Your task to perform on an android device: Add asus rog to the cart on target, then select checkout. Image 0: 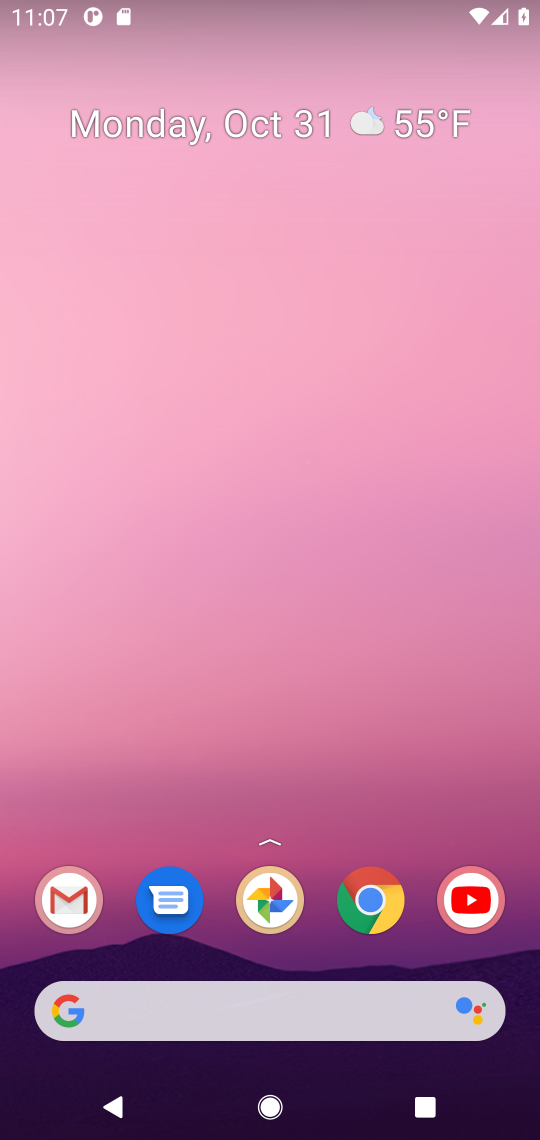
Step 0: click (367, 908)
Your task to perform on an android device: Add asus rog to the cart on target, then select checkout. Image 1: 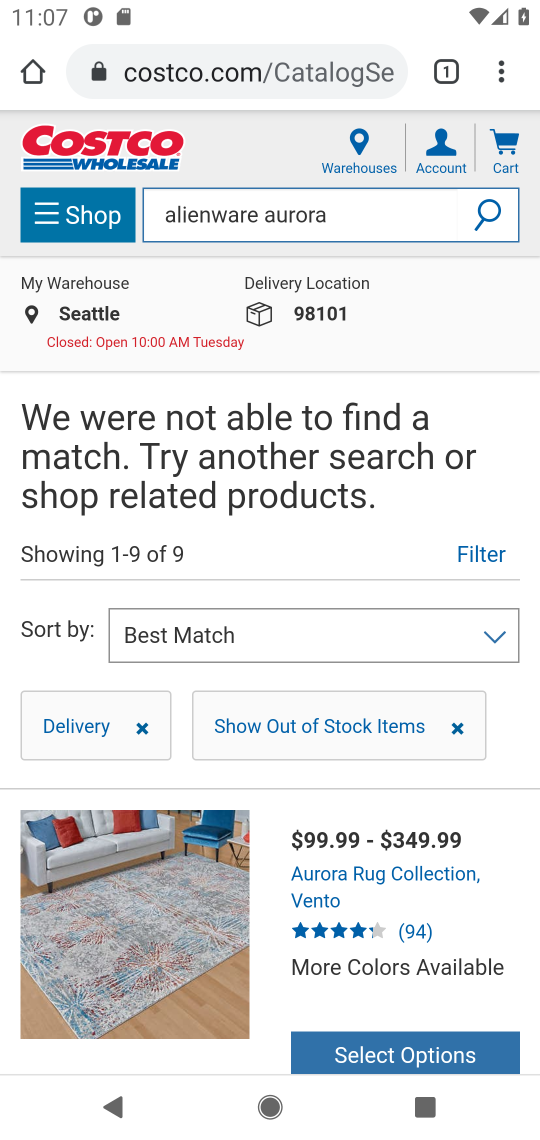
Step 1: click (219, 75)
Your task to perform on an android device: Add asus rog to the cart on target, then select checkout. Image 2: 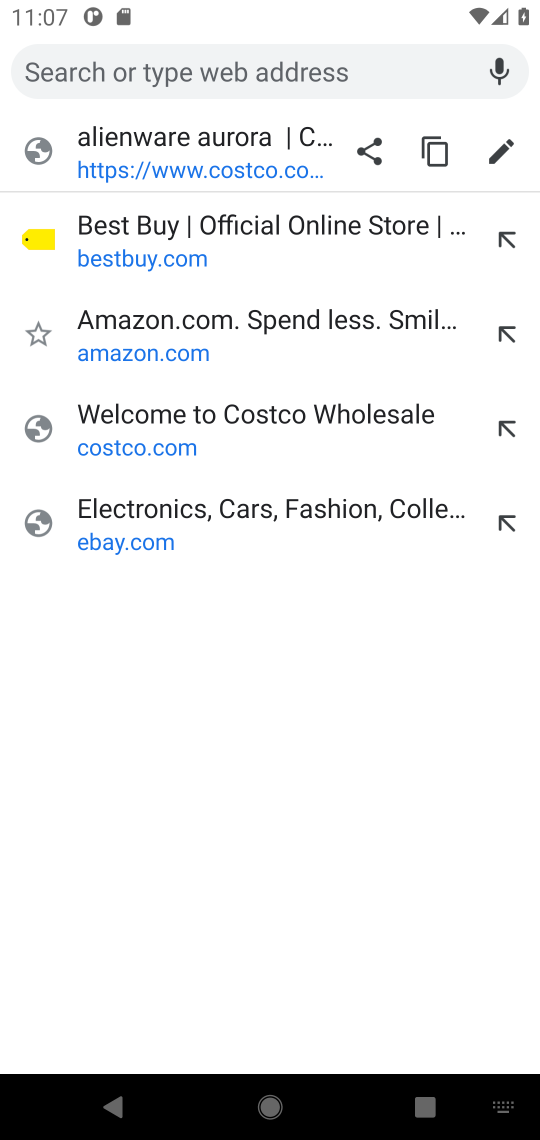
Step 2: type "target.com"
Your task to perform on an android device: Add asus rog to the cart on target, then select checkout. Image 3: 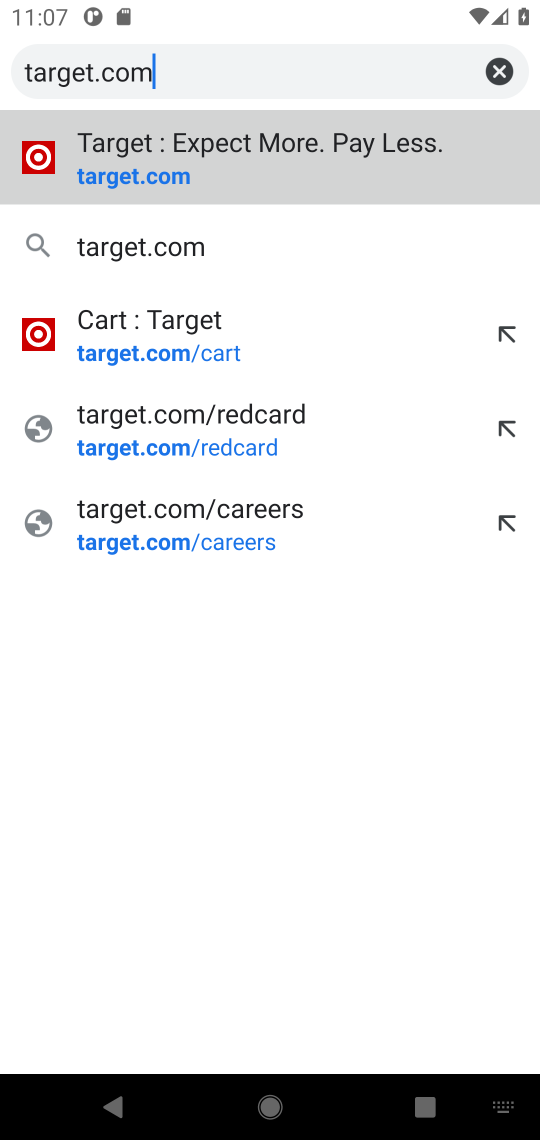
Step 3: click (118, 259)
Your task to perform on an android device: Add asus rog to the cart on target, then select checkout. Image 4: 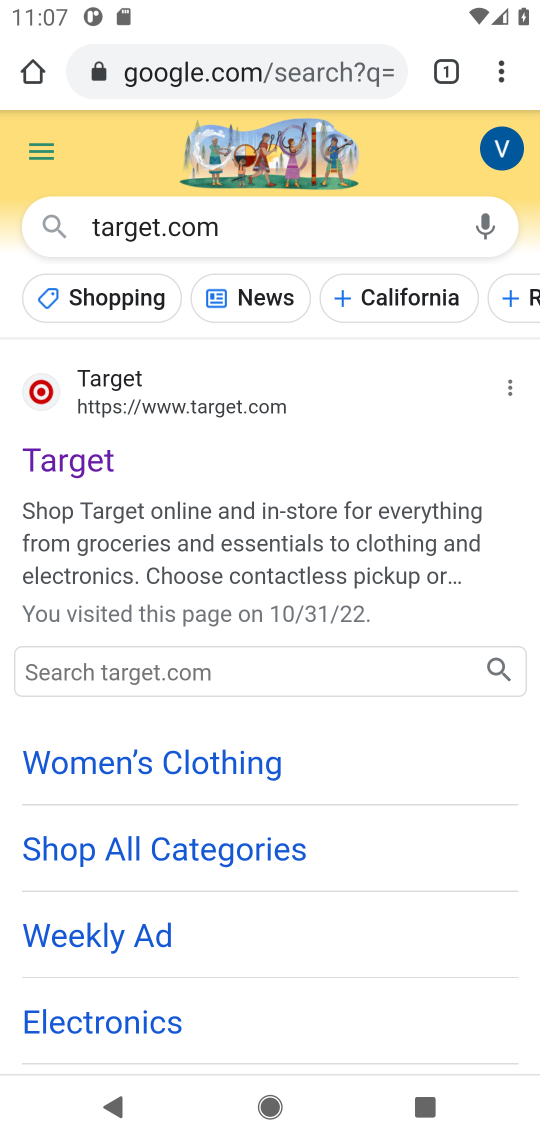
Step 4: click (127, 414)
Your task to perform on an android device: Add asus rog to the cart on target, then select checkout. Image 5: 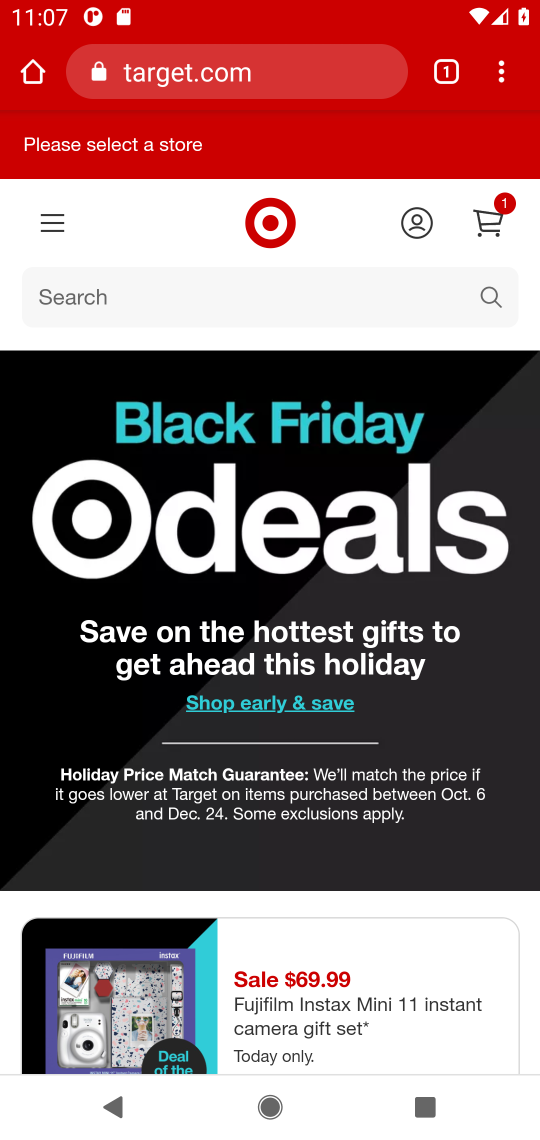
Step 5: click (500, 298)
Your task to perform on an android device: Add asus rog to the cart on target, then select checkout. Image 6: 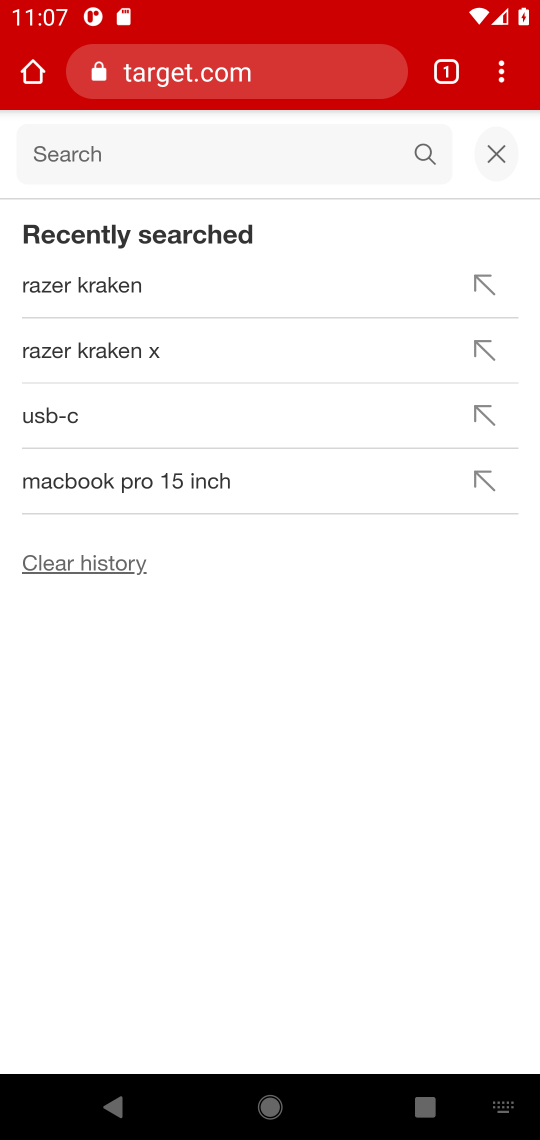
Step 6: type "asus rog"
Your task to perform on an android device: Add asus rog to the cart on target, then select checkout. Image 7: 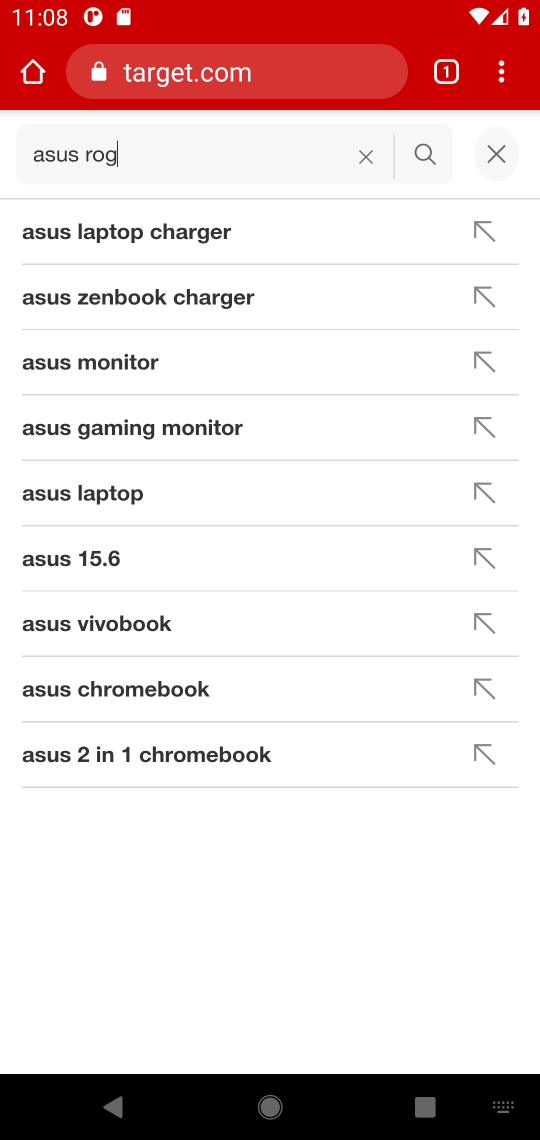
Step 7: click (418, 142)
Your task to perform on an android device: Add asus rog to the cart on target, then select checkout. Image 8: 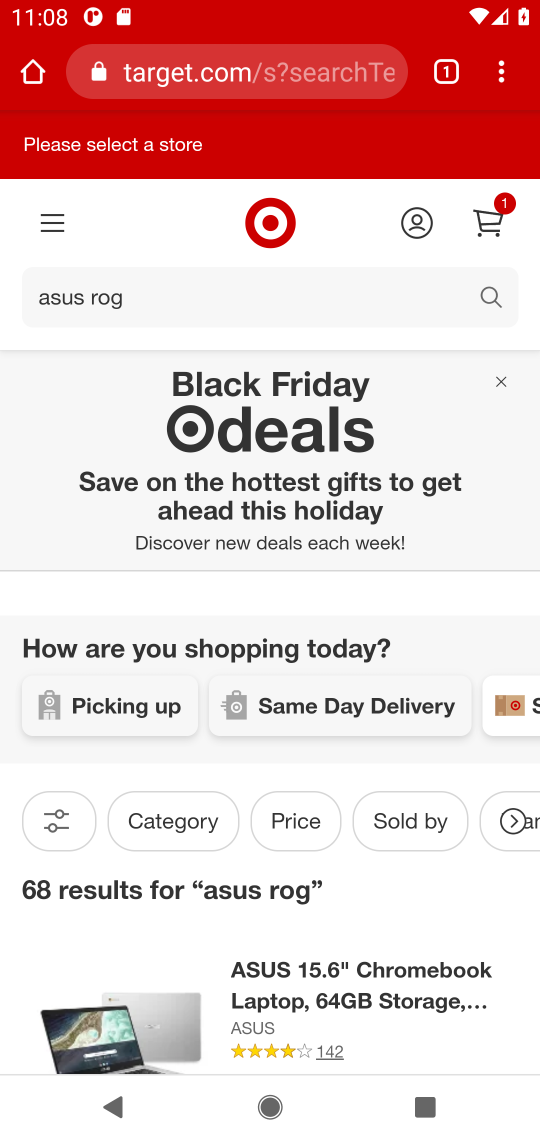
Step 8: drag from (222, 905) to (196, 619)
Your task to perform on an android device: Add asus rog to the cart on target, then select checkout. Image 9: 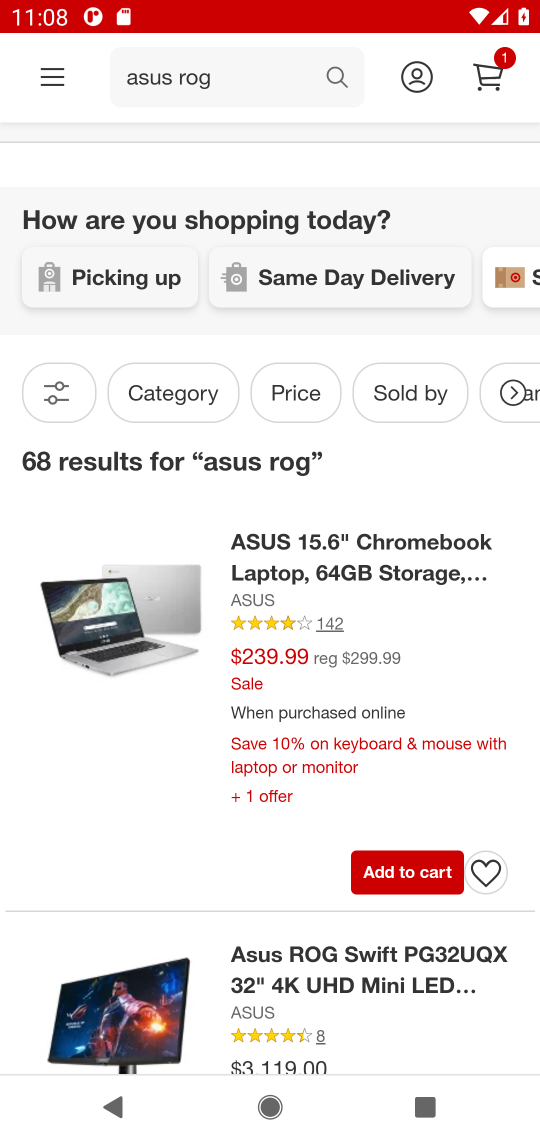
Step 9: click (177, 1044)
Your task to perform on an android device: Add asus rog to the cart on target, then select checkout. Image 10: 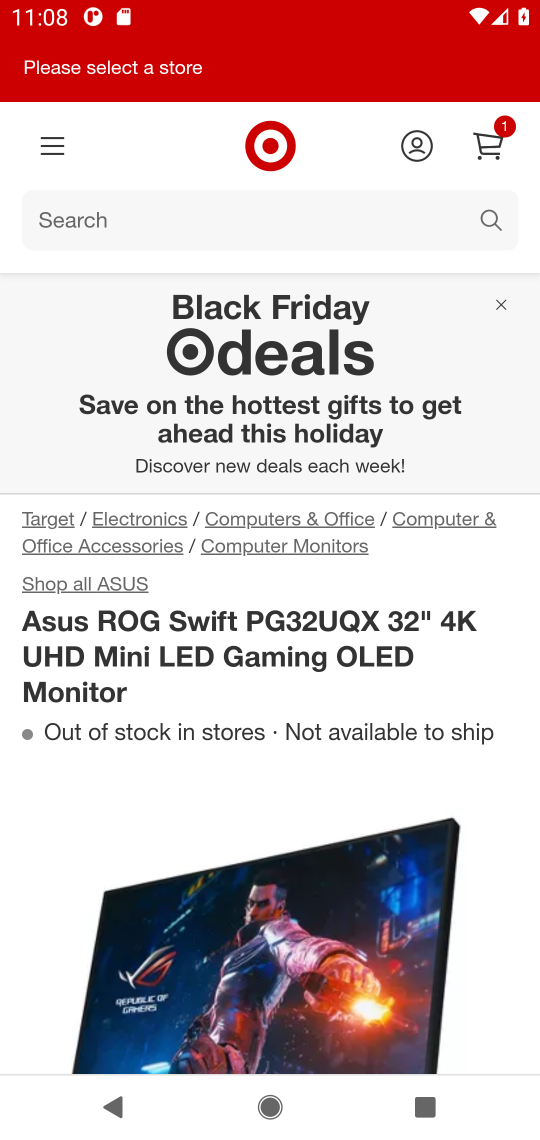
Step 10: drag from (194, 942) to (184, 319)
Your task to perform on an android device: Add asus rog to the cart on target, then select checkout. Image 11: 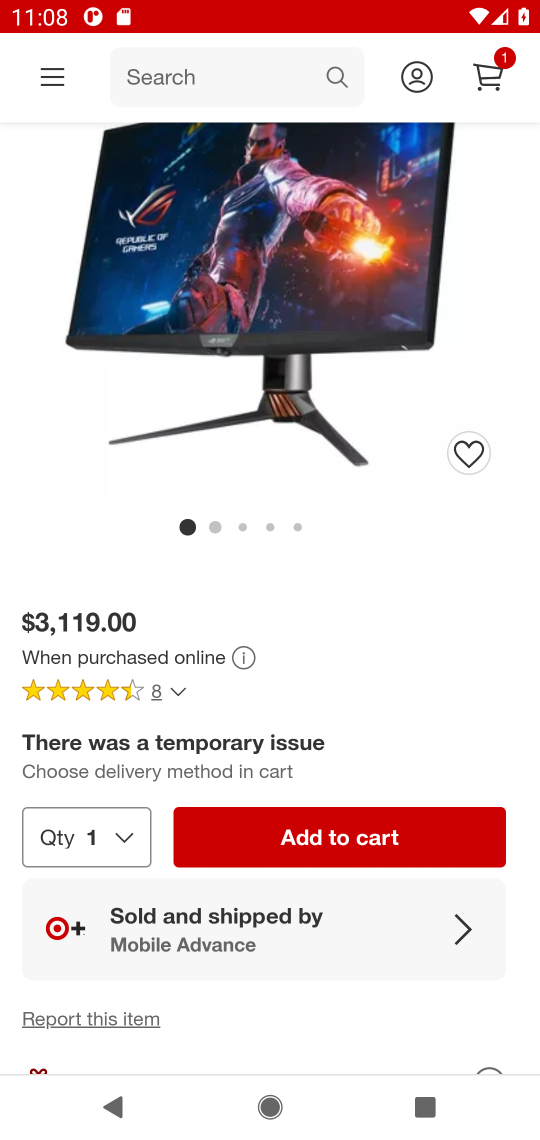
Step 11: click (338, 837)
Your task to perform on an android device: Add asus rog to the cart on target, then select checkout. Image 12: 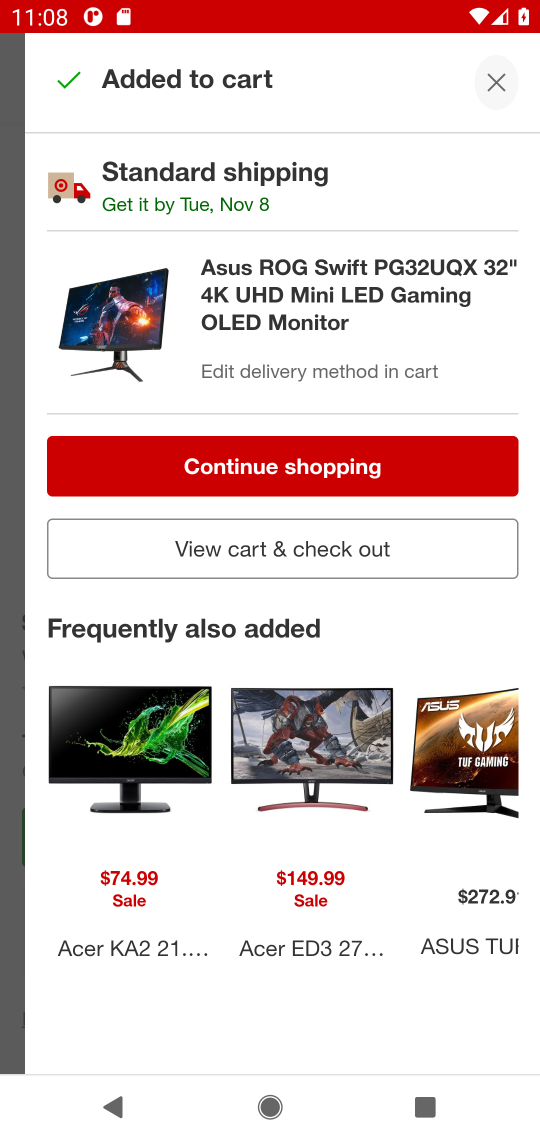
Step 12: click (260, 550)
Your task to perform on an android device: Add asus rog to the cart on target, then select checkout. Image 13: 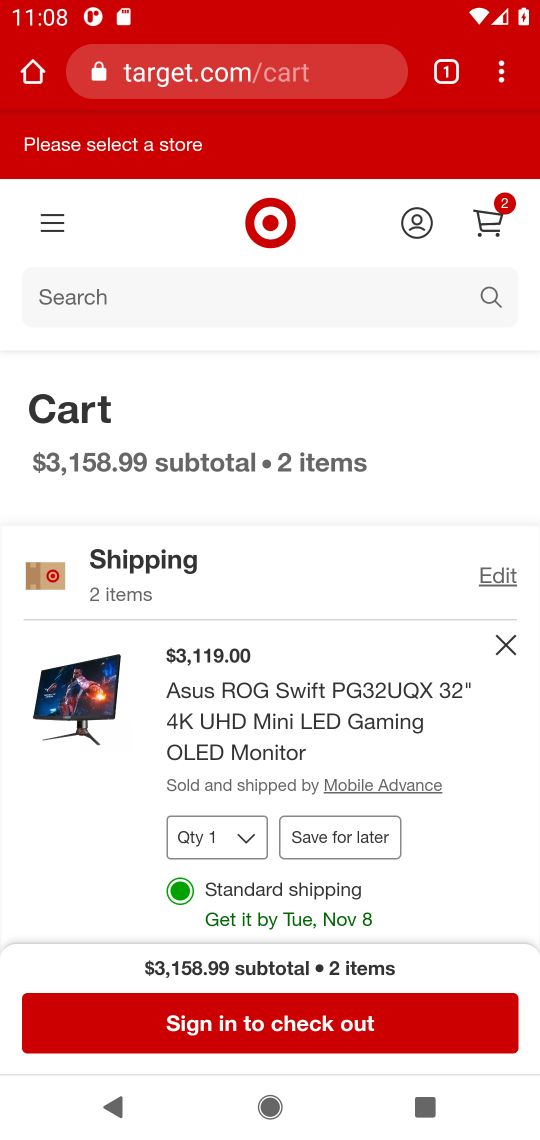
Step 13: click (248, 1021)
Your task to perform on an android device: Add asus rog to the cart on target, then select checkout. Image 14: 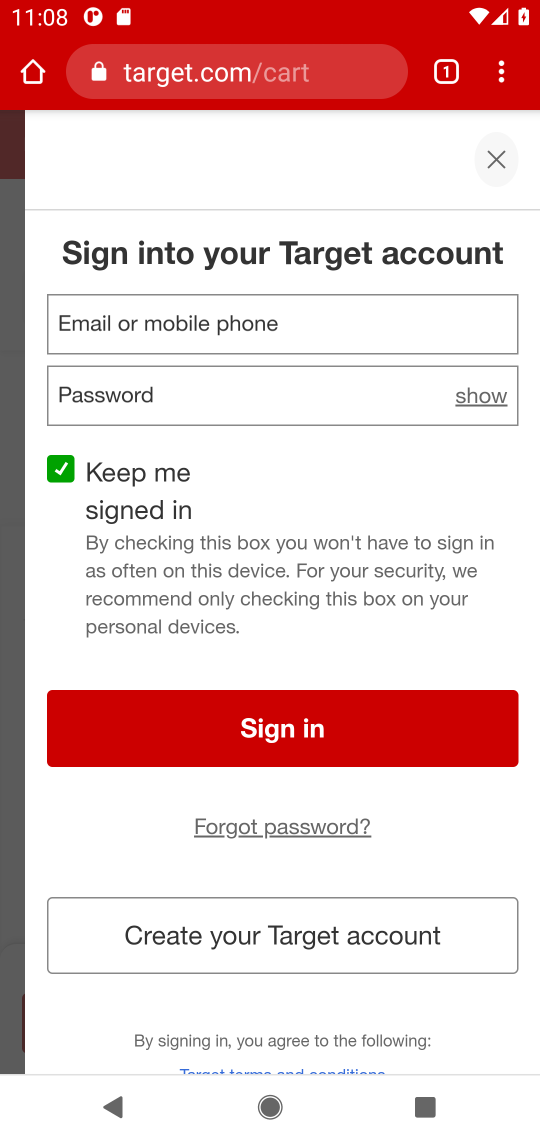
Step 14: task complete